Your task to perform on an android device: create a new album in the google photos Image 0: 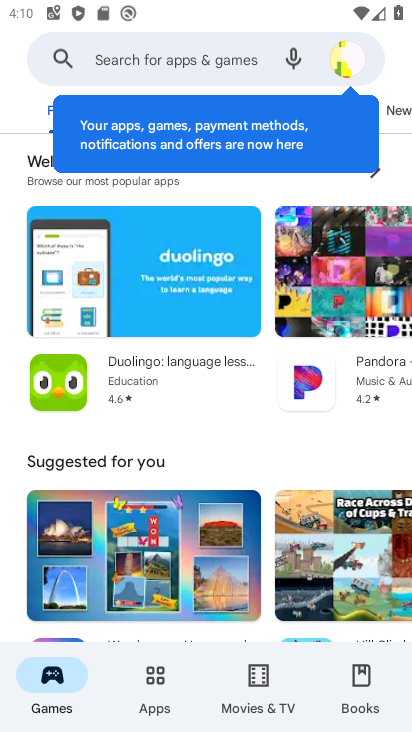
Step 0: press home button
Your task to perform on an android device: create a new album in the google photos Image 1: 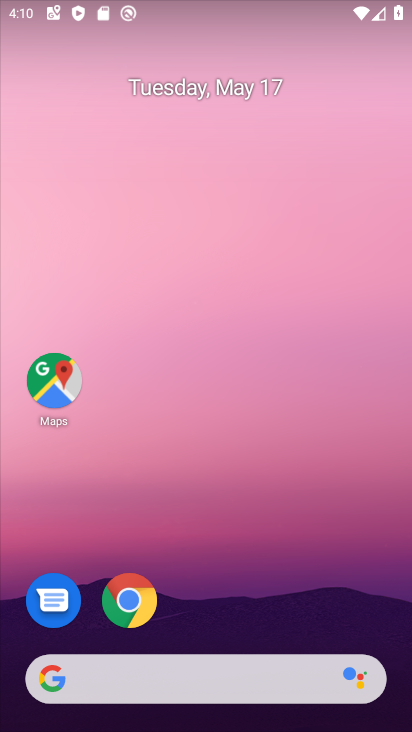
Step 1: drag from (245, 606) to (286, 134)
Your task to perform on an android device: create a new album in the google photos Image 2: 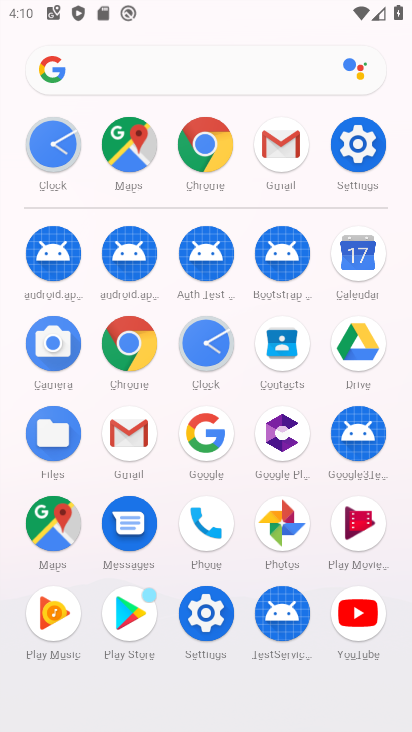
Step 2: click (283, 542)
Your task to perform on an android device: create a new album in the google photos Image 3: 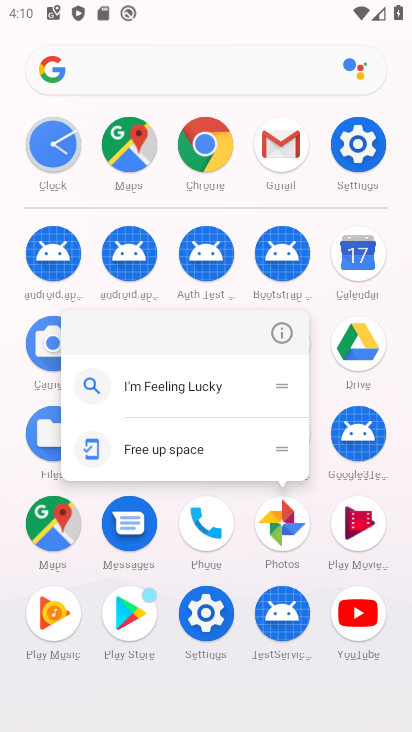
Step 3: click (284, 543)
Your task to perform on an android device: create a new album in the google photos Image 4: 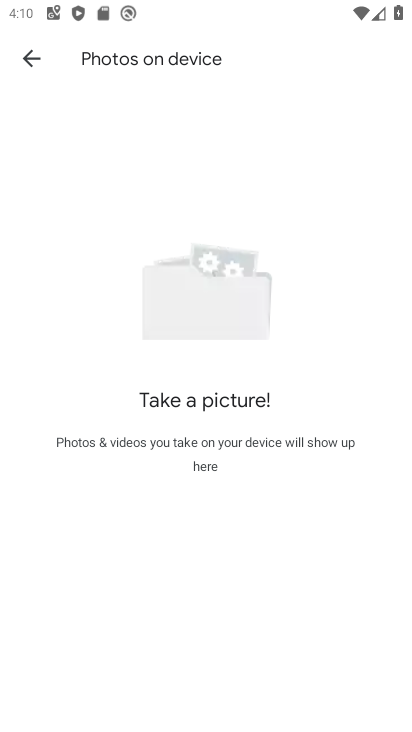
Step 4: click (41, 56)
Your task to perform on an android device: create a new album in the google photos Image 5: 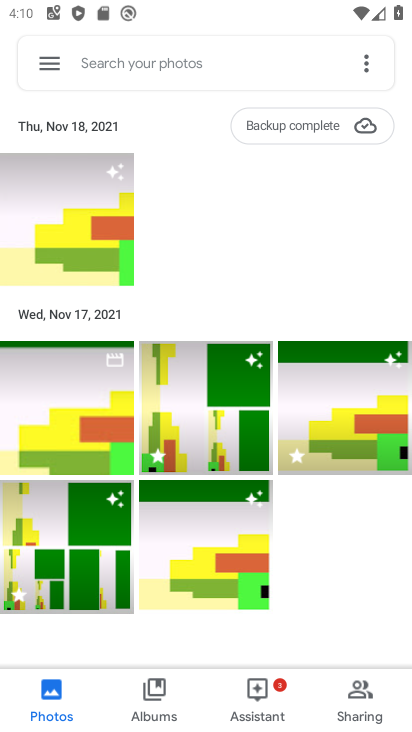
Step 5: click (162, 696)
Your task to perform on an android device: create a new album in the google photos Image 6: 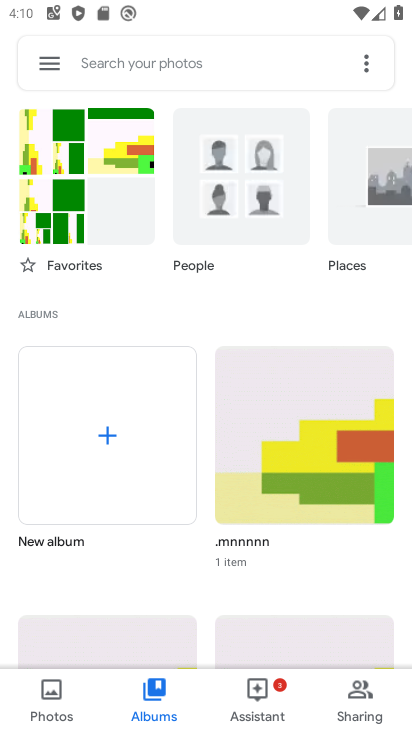
Step 6: click (103, 426)
Your task to perform on an android device: create a new album in the google photos Image 7: 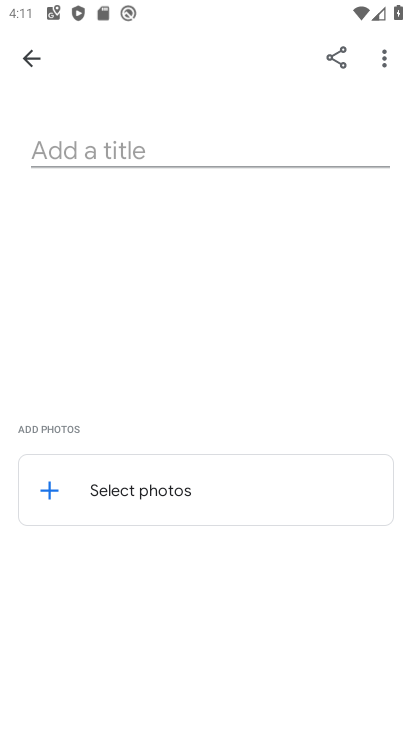
Step 7: click (117, 150)
Your task to perform on an android device: create a new album in the google photos Image 8: 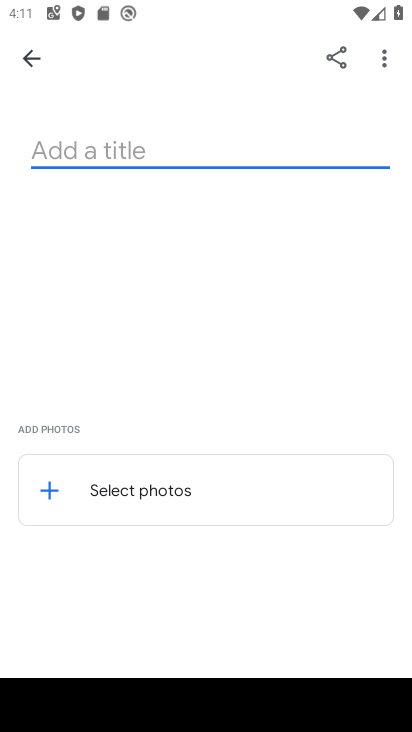
Step 8: type "blent"
Your task to perform on an android device: create a new album in the google photos Image 9: 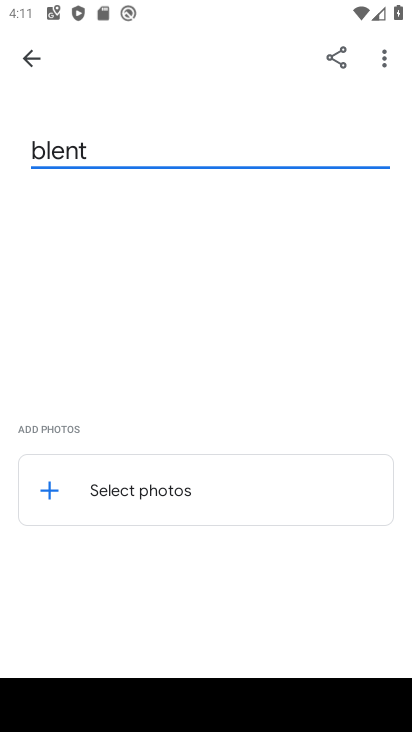
Step 9: click (57, 493)
Your task to perform on an android device: create a new album in the google photos Image 10: 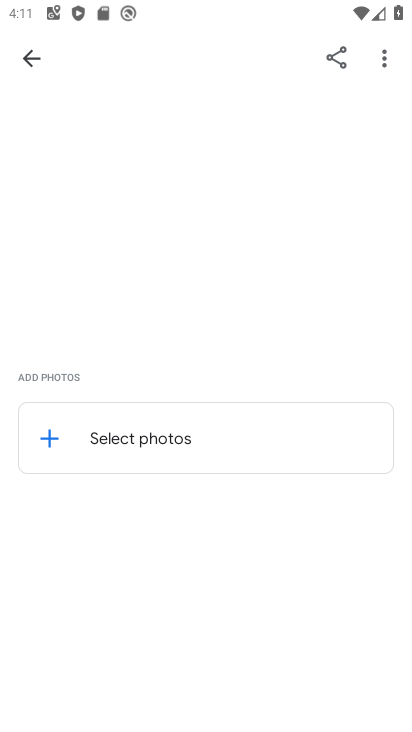
Step 10: click (387, 54)
Your task to perform on an android device: create a new album in the google photos Image 11: 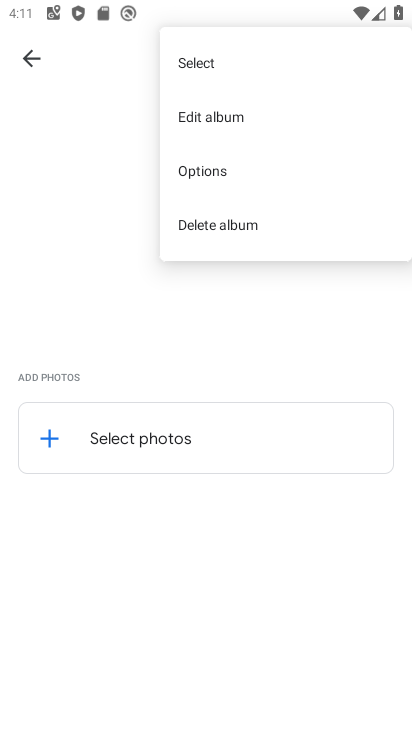
Step 11: click (230, 122)
Your task to perform on an android device: create a new album in the google photos Image 12: 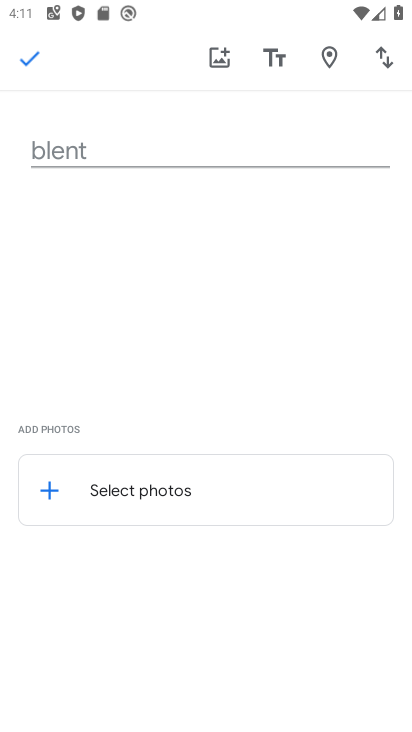
Step 12: click (42, 491)
Your task to perform on an android device: create a new album in the google photos Image 13: 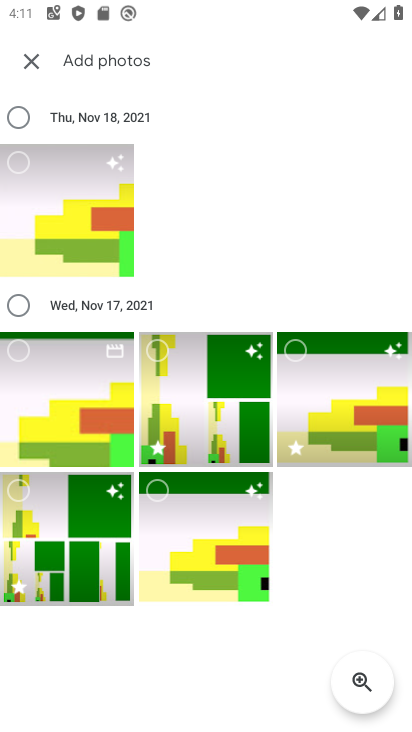
Step 13: click (19, 317)
Your task to perform on an android device: create a new album in the google photos Image 14: 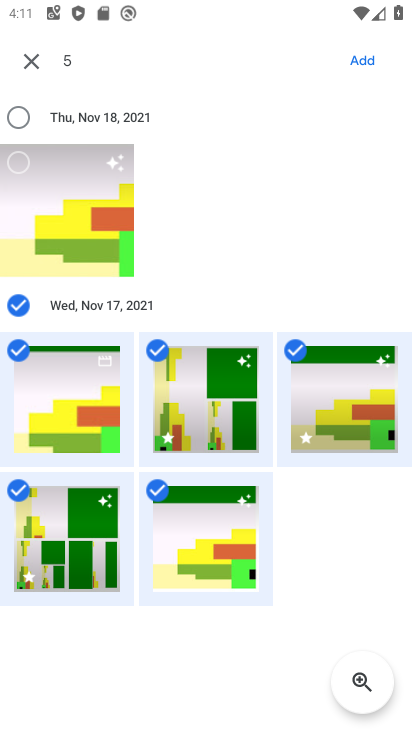
Step 14: click (171, 353)
Your task to perform on an android device: create a new album in the google photos Image 15: 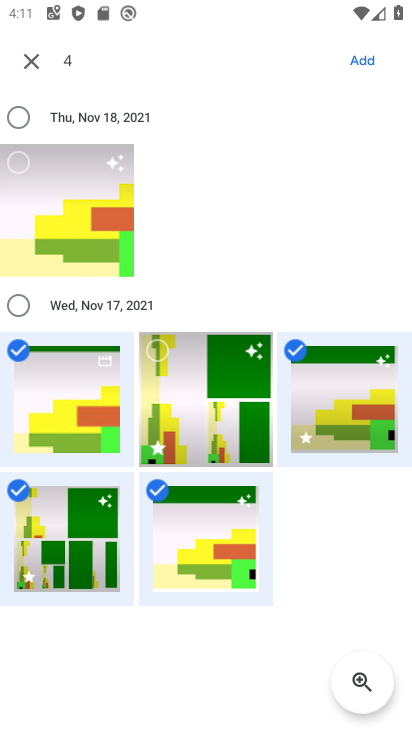
Step 15: click (363, 59)
Your task to perform on an android device: create a new album in the google photos Image 16: 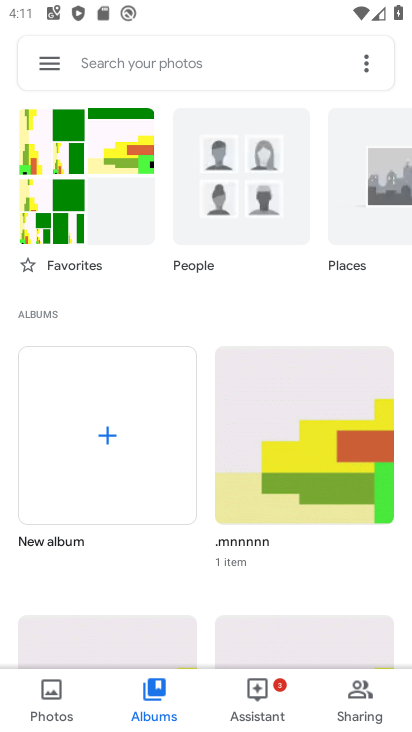
Step 16: click (117, 442)
Your task to perform on an android device: create a new album in the google photos Image 17: 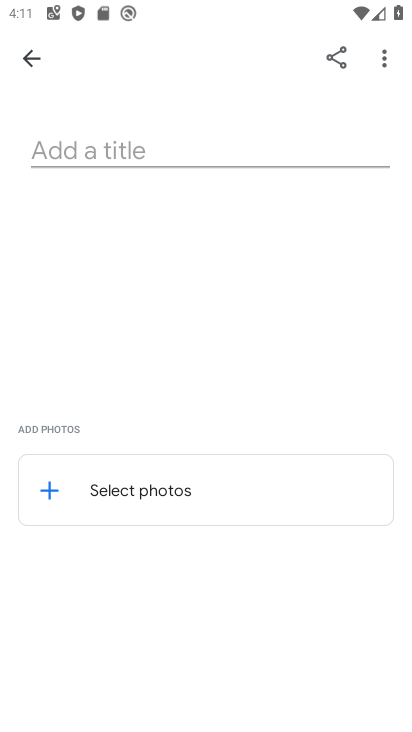
Step 17: click (177, 148)
Your task to perform on an android device: create a new album in the google photos Image 18: 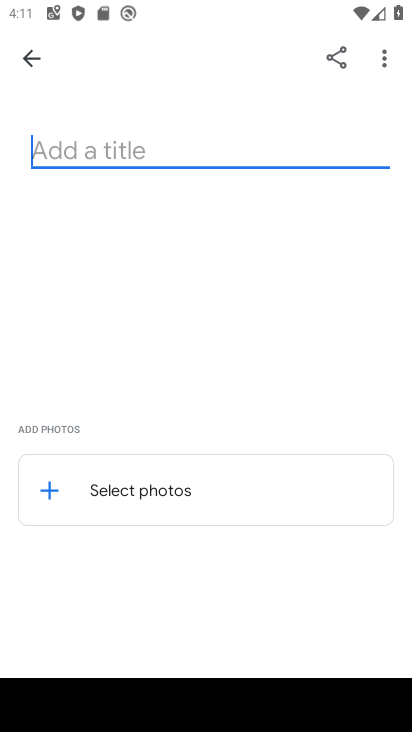
Step 18: type "fluenttt"
Your task to perform on an android device: create a new album in the google photos Image 19: 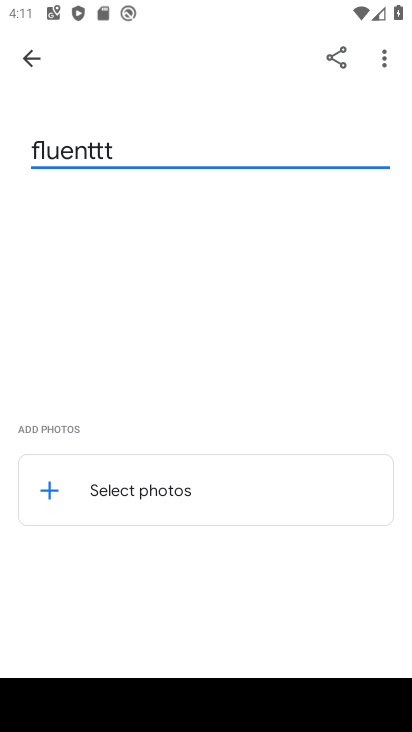
Step 19: click (50, 492)
Your task to perform on an android device: create a new album in the google photos Image 20: 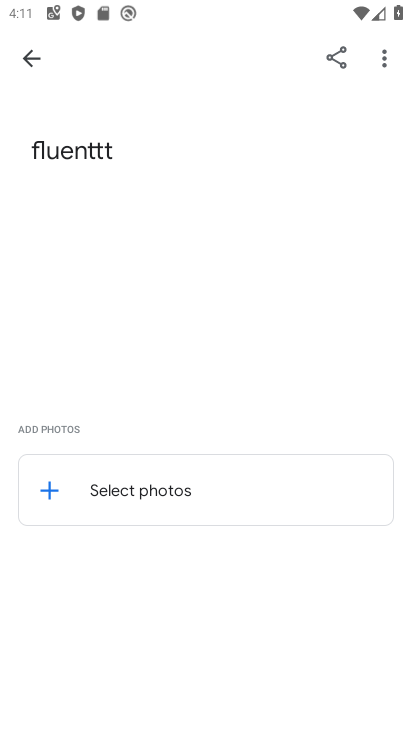
Step 20: click (41, 490)
Your task to perform on an android device: create a new album in the google photos Image 21: 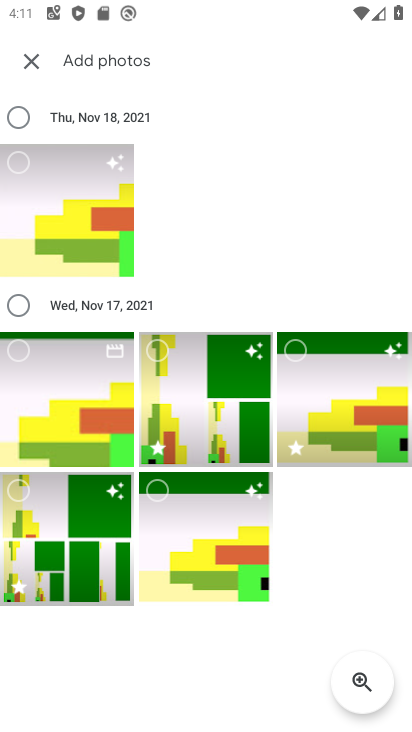
Step 21: click (24, 160)
Your task to perform on an android device: create a new album in the google photos Image 22: 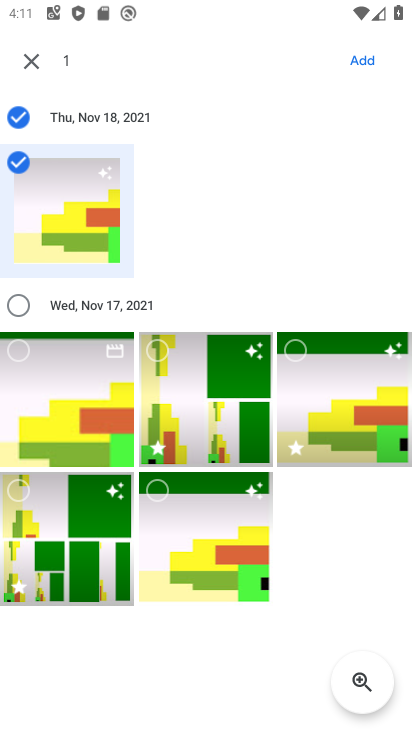
Step 22: click (162, 353)
Your task to perform on an android device: create a new album in the google photos Image 23: 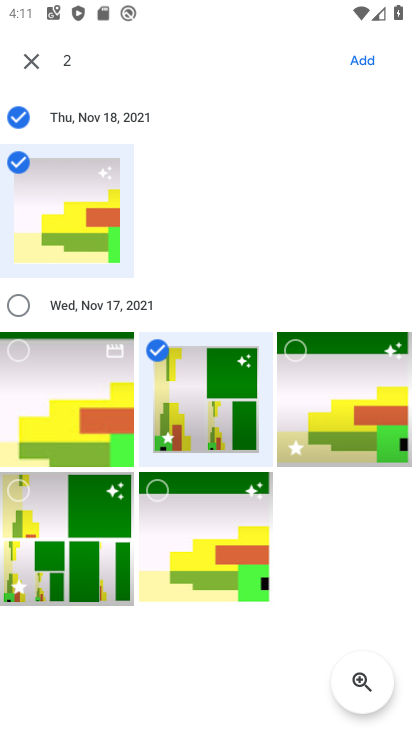
Step 23: click (159, 510)
Your task to perform on an android device: create a new album in the google photos Image 24: 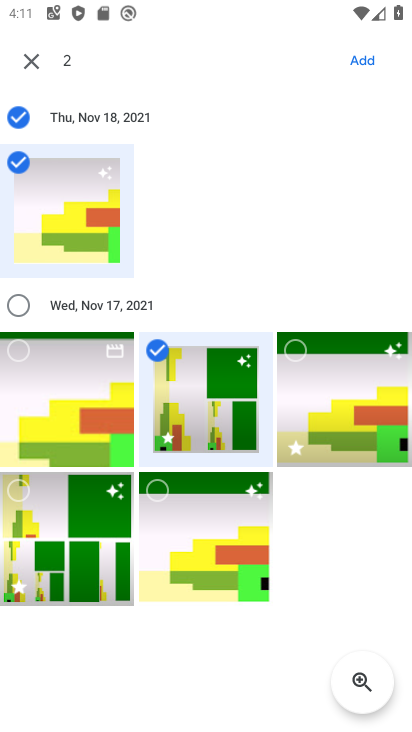
Step 24: click (323, 361)
Your task to perform on an android device: create a new album in the google photos Image 25: 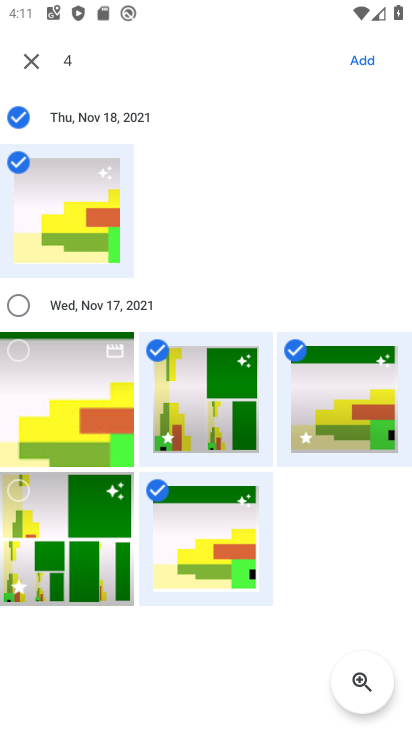
Step 25: click (47, 498)
Your task to perform on an android device: create a new album in the google photos Image 26: 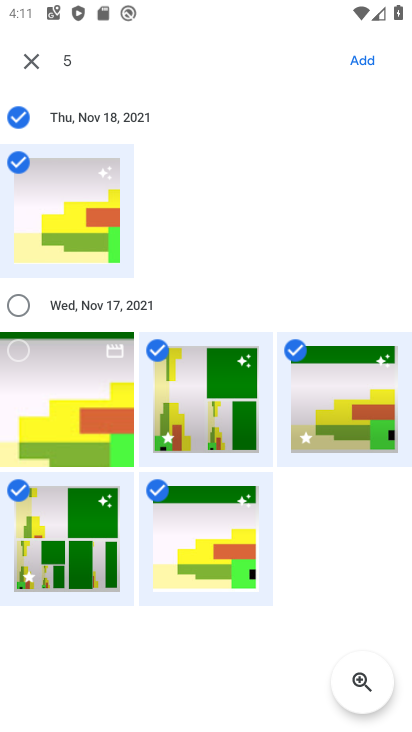
Step 26: click (363, 59)
Your task to perform on an android device: create a new album in the google photos Image 27: 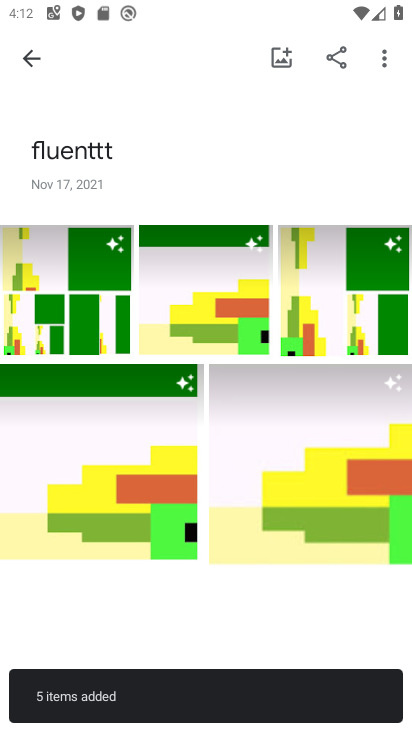
Step 27: task complete